Your task to perform on an android device: Search for vegetarian restaurants on Maps Image 0: 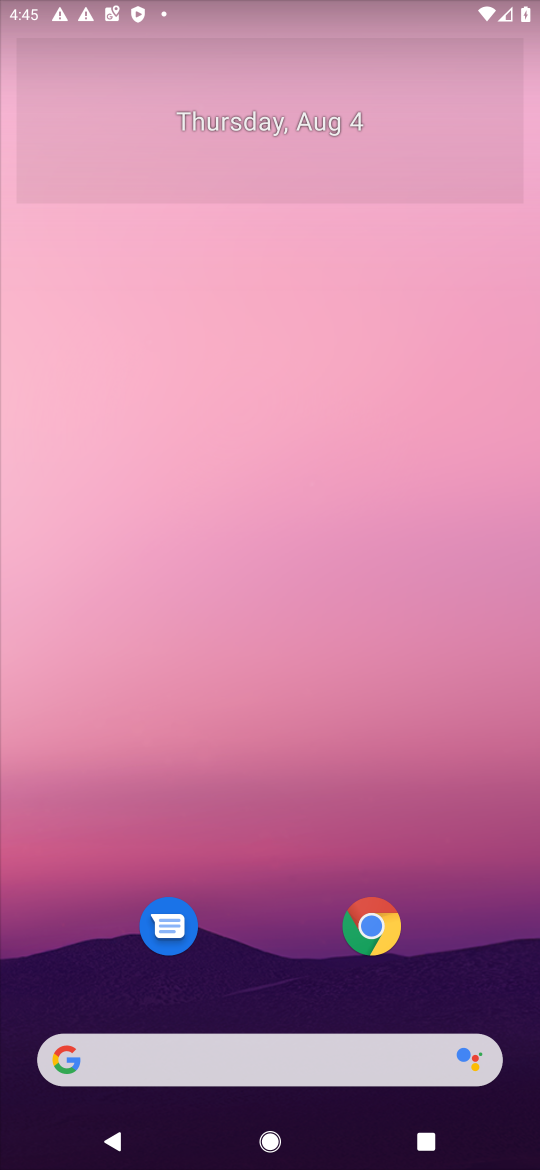
Step 0: drag from (261, 963) to (348, 344)
Your task to perform on an android device: Search for vegetarian restaurants on Maps Image 1: 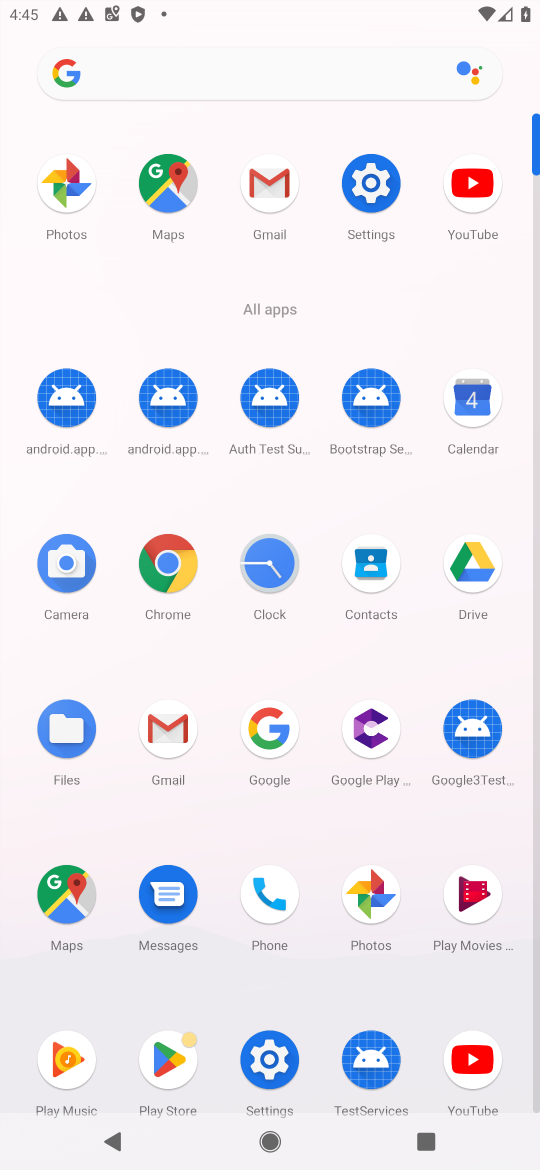
Step 1: click (173, 193)
Your task to perform on an android device: Search for vegetarian restaurants on Maps Image 2: 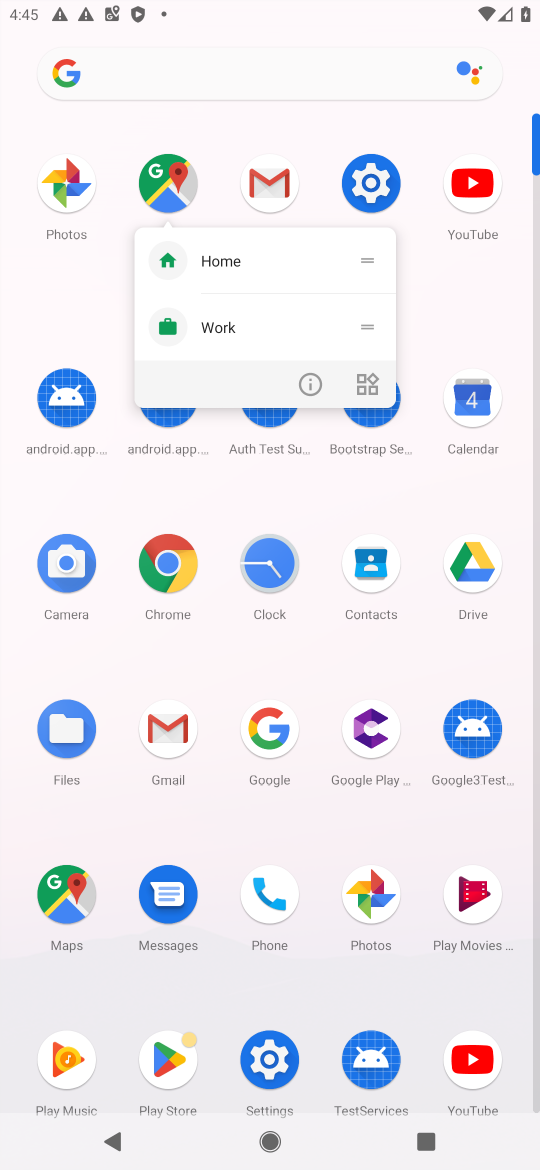
Step 2: click (173, 193)
Your task to perform on an android device: Search for vegetarian restaurants on Maps Image 3: 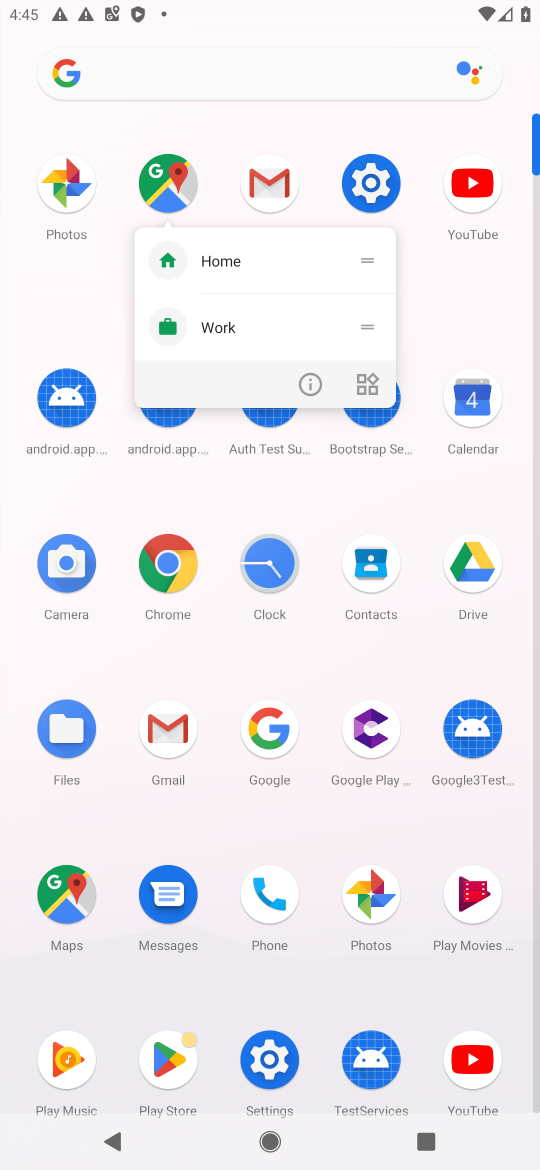
Step 3: click (173, 193)
Your task to perform on an android device: Search for vegetarian restaurants on Maps Image 4: 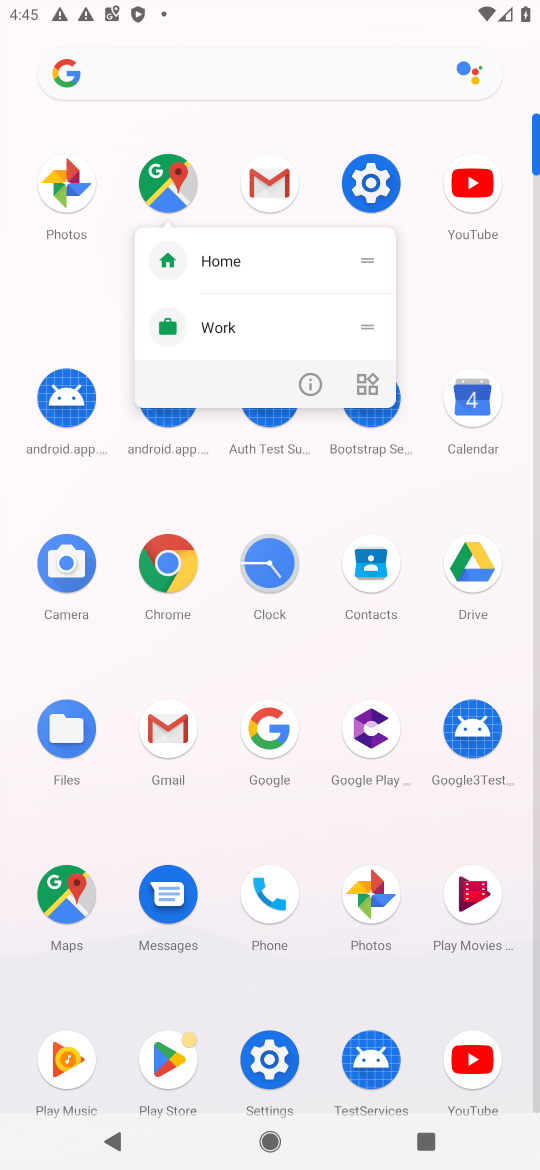
Step 4: click (165, 172)
Your task to perform on an android device: Search for vegetarian restaurants on Maps Image 5: 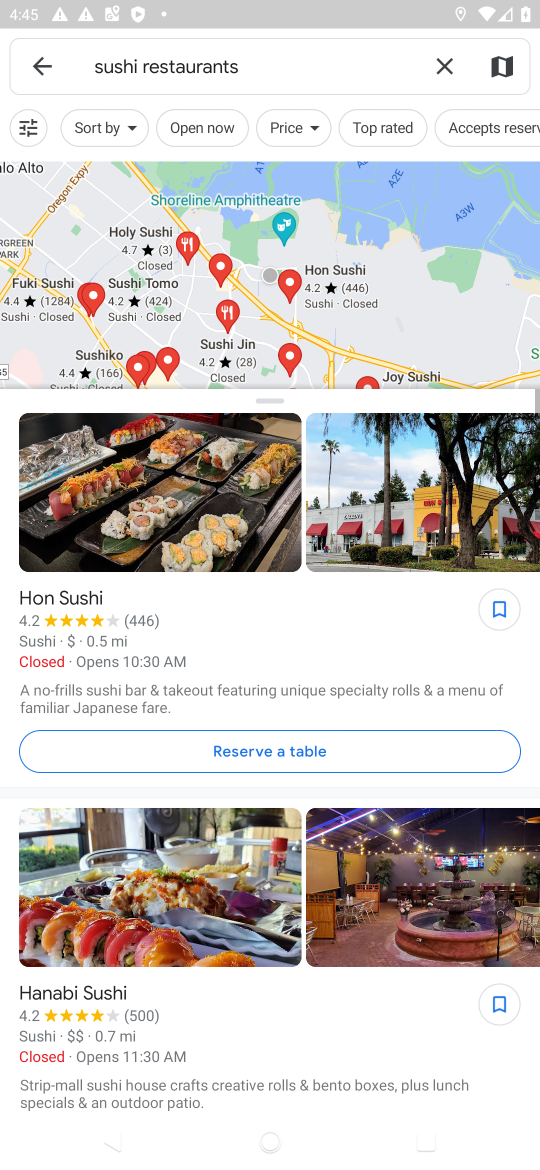
Step 5: click (39, 61)
Your task to perform on an android device: Search for vegetarian restaurants on Maps Image 6: 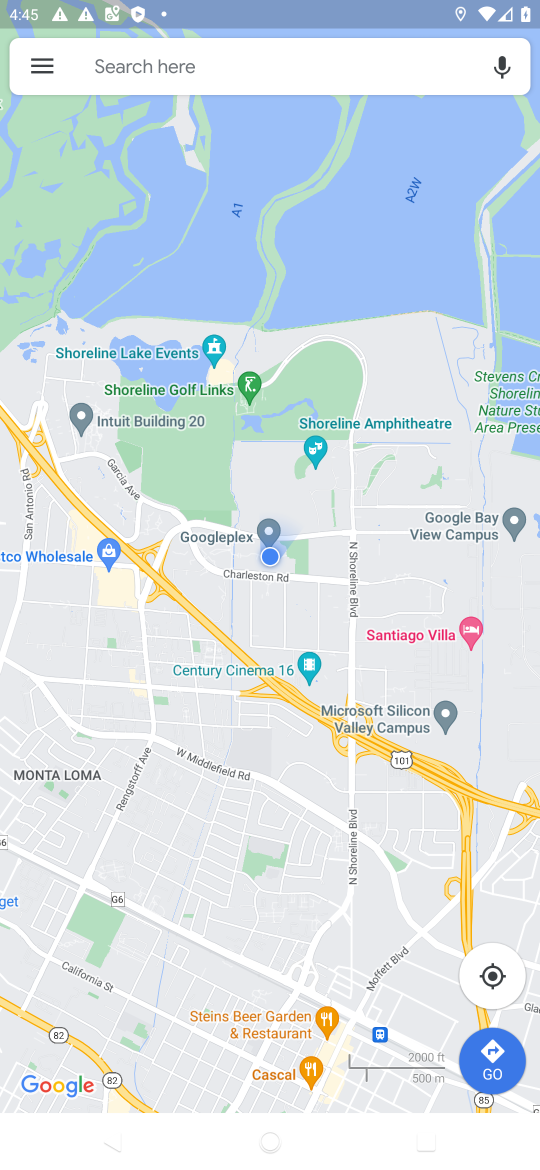
Step 6: click (178, 79)
Your task to perform on an android device: Search for vegetarian restaurants on Maps Image 7: 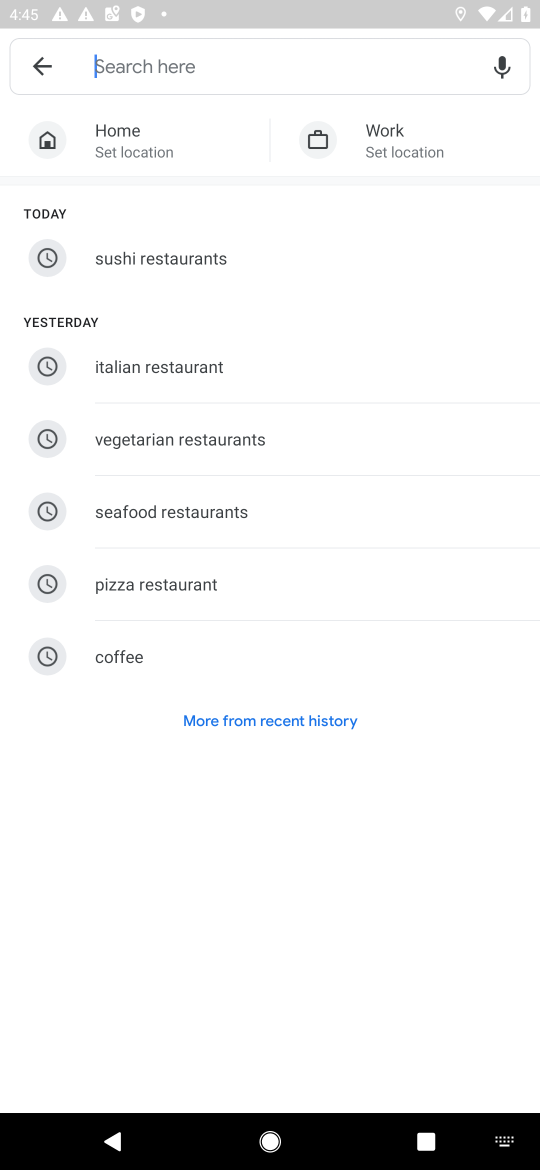
Step 7: click (194, 450)
Your task to perform on an android device: Search for vegetarian restaurants on Maps Image 8: 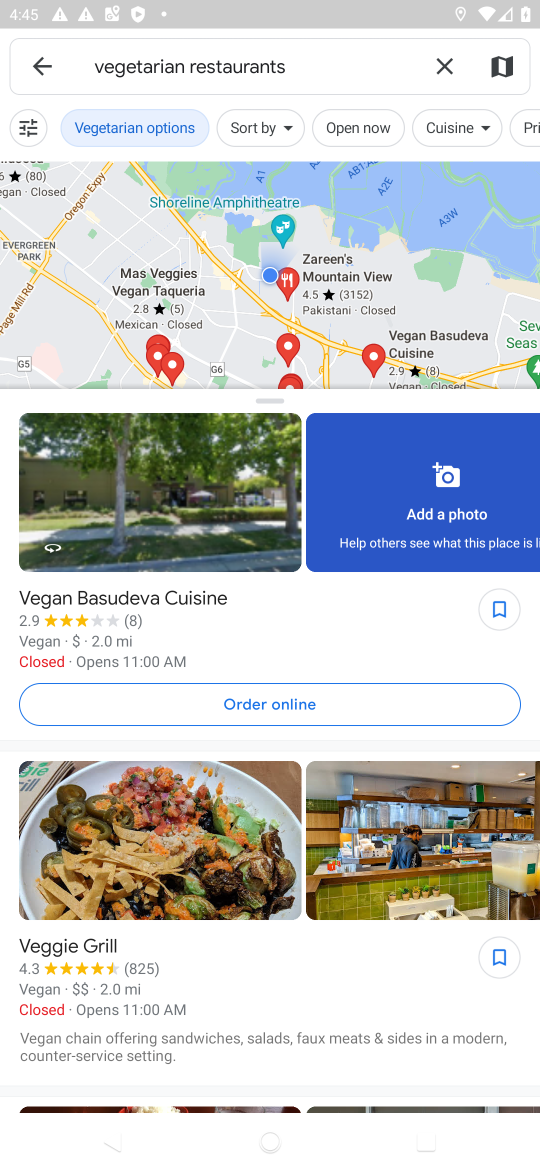
Step 8: task complete